Your task to perform on an android device: Open accessibility settings Image 0: 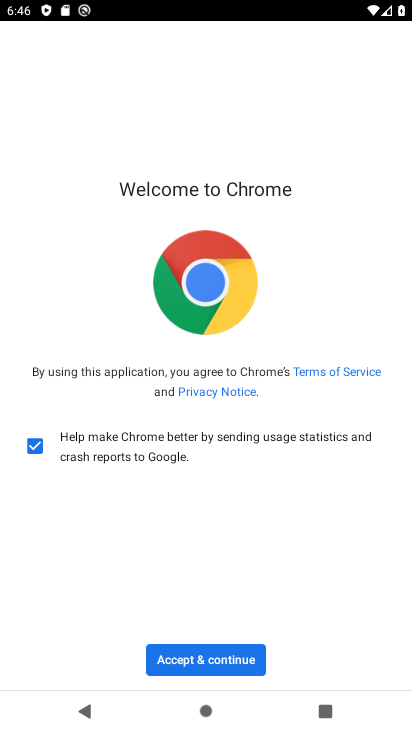
Step 0: press home button
Your task to perform on an android device: Open accessibility settings Image 1: 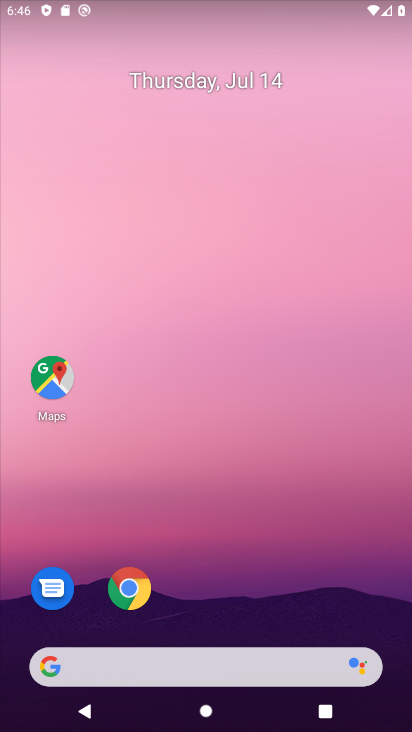
Step 1: drag from (392, 659) to (268, 73)
Your task to perform on an android device: Open accessibility settings Image 2: 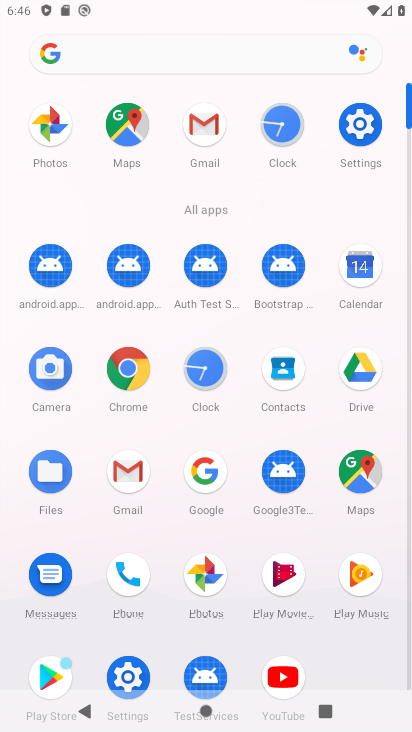
Step 2: click (132, 680)
Your task to perform on an android device: Open accessibility settings Image 3: 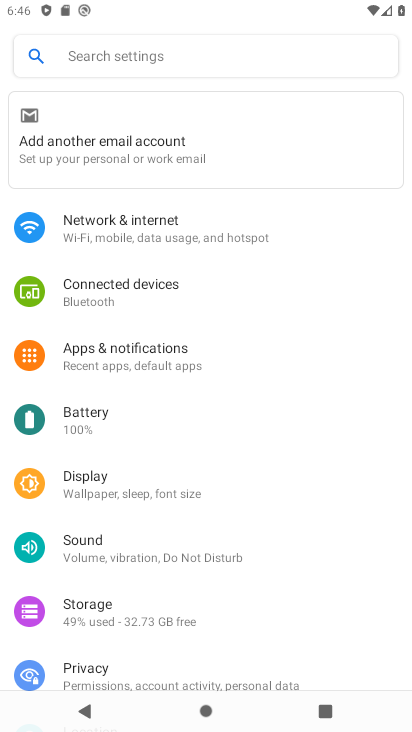
Step 3: drag from (132, 680) to (212, 233)
Your task to perform on an android device: Open accessibility settings Image 4: 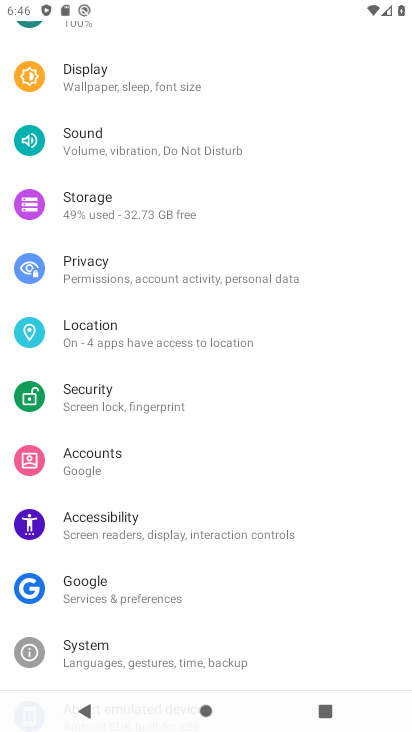
Step 4: click (146, 521)
Your task to perform on an android device: Open accessibility settings Image 5: 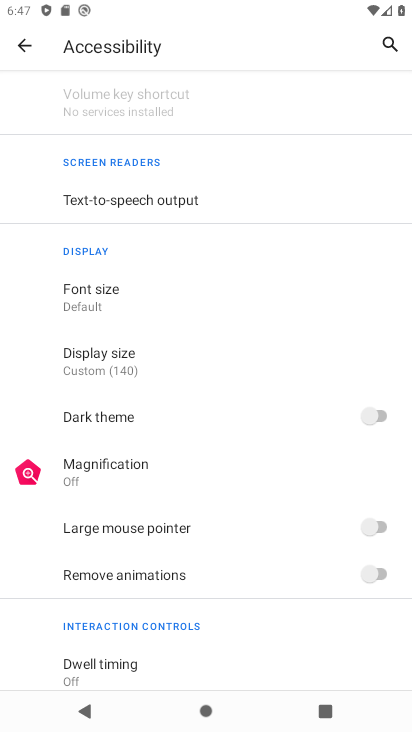
Step 5: task complete